Your task to perform on an android device: Search for vegetarian restaurants on Maps Image 0: 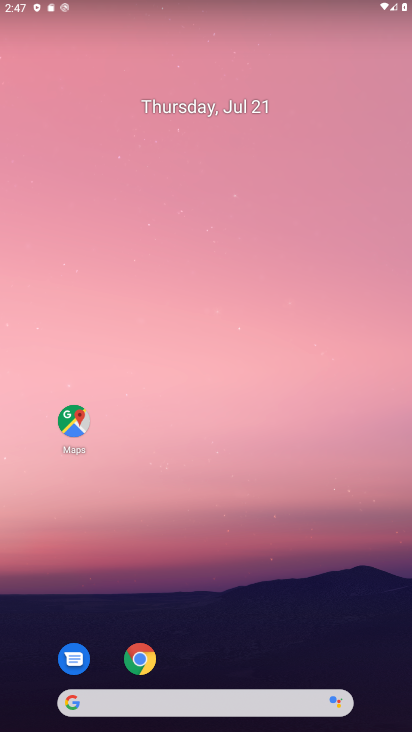
Step 0: drag from (258, 643) to (158, 226)
Your task to perform on an android device: Search for vegetarian restaurants on Maps Image 1: 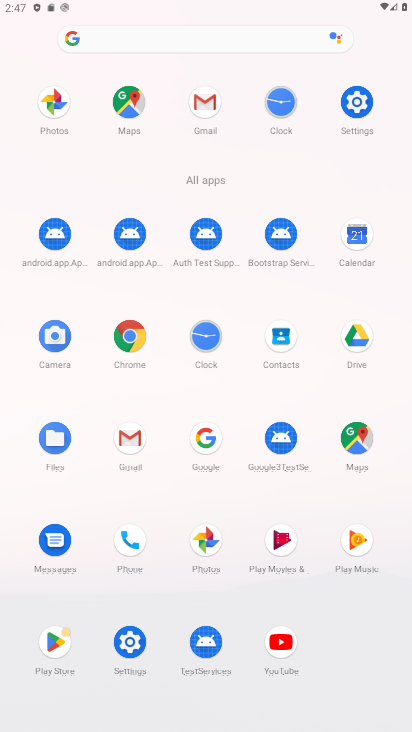
Step 1: click (356, 439)
Your task to perform on an android device: Search for vegetarian restaurants on Maps Image 2: 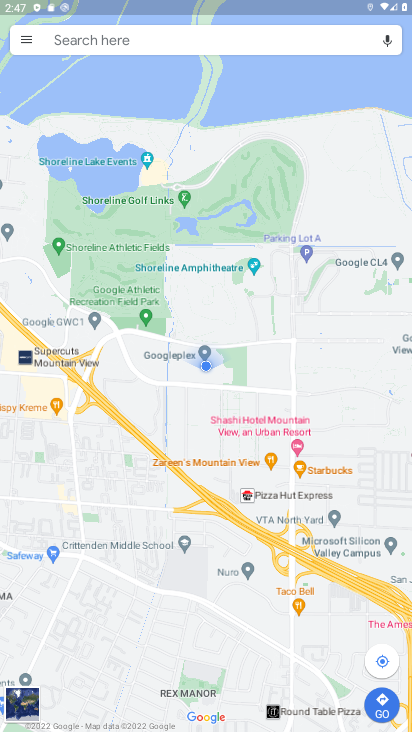
Step 2: click (230, 36)
Your task to perform on an android device: Search for vegetarian restaurants on Maps Image 3: 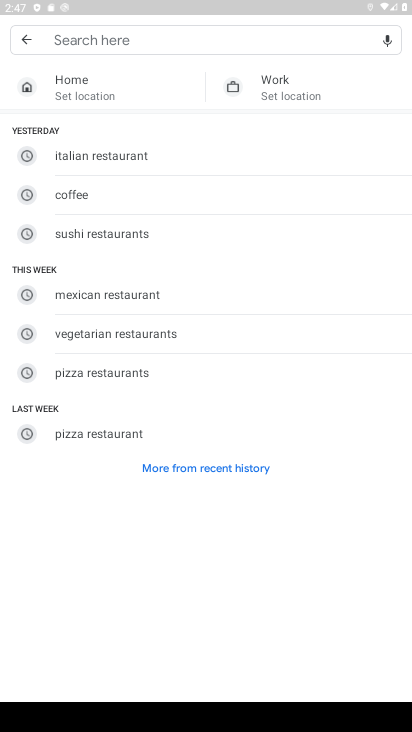
Step 3: click (144, 324)
Your task to perform on an android device: Search for vegetarian restaurants on Maps Image 4: 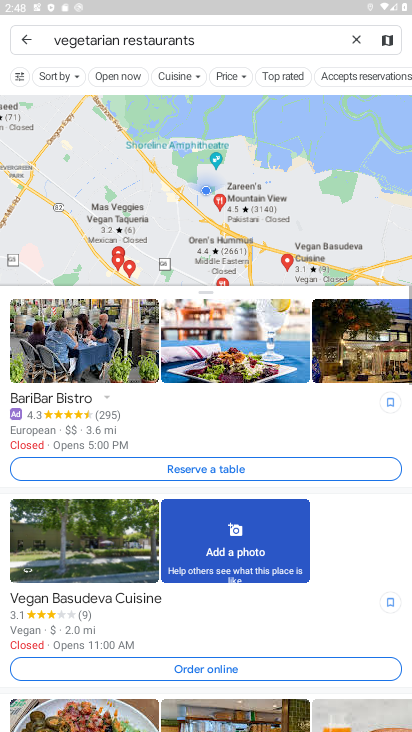
Step 4: task complete